Your task to perform on an android device: When is my next appointment? Image 0: 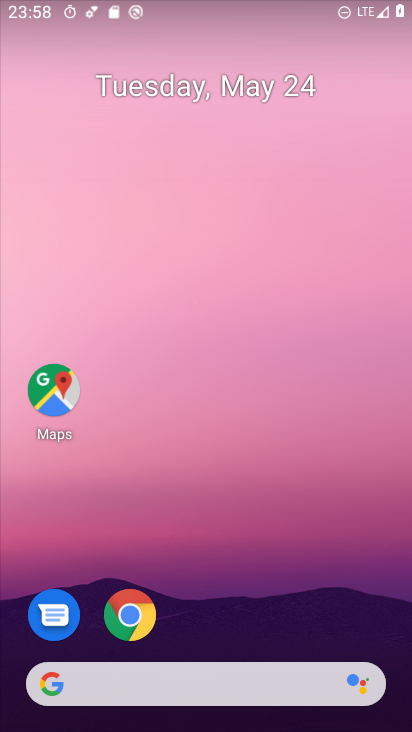
Step 0: press home button
Your task to perform on an android device: When is my next appointment? Image 1: 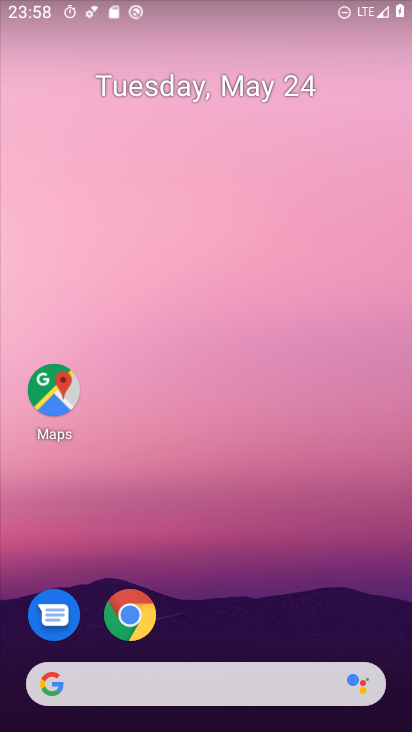
Step 1: drag from (266, 695) to (337, 90)
Your task to perform on an android device: When is my next appointment? Image 2: 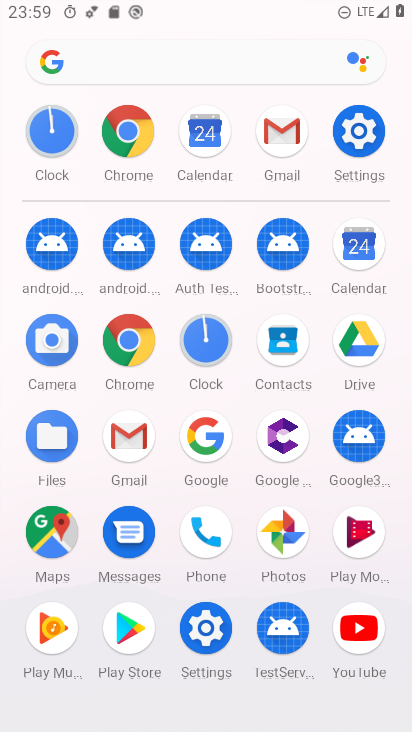
Step 2: click (198, 147)
Your task to perform on an android device: When is my next appointment? Image 3: 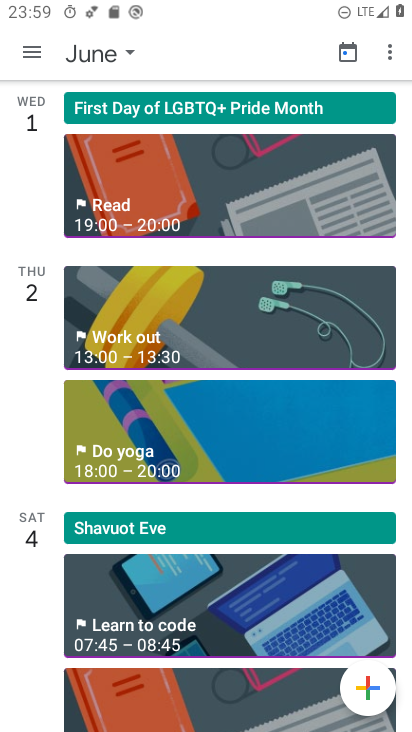
Step 3: click (44, 60)
Your task to perform on an android device: When is my next appointment? Image 4: 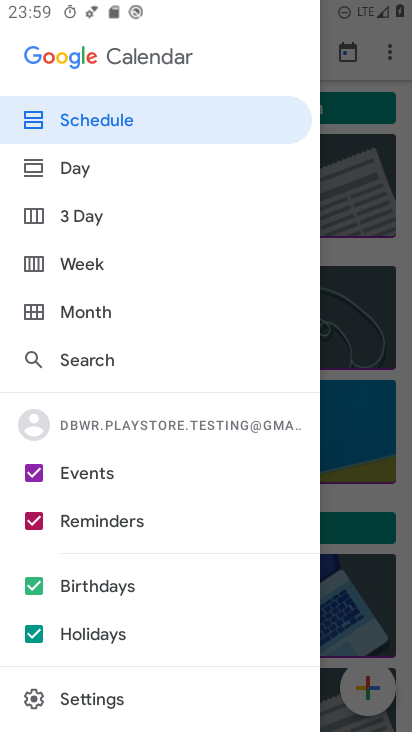
Step 4: click (124, 123)
Your task to perform on an android device: When is my next appointment? Image 5: 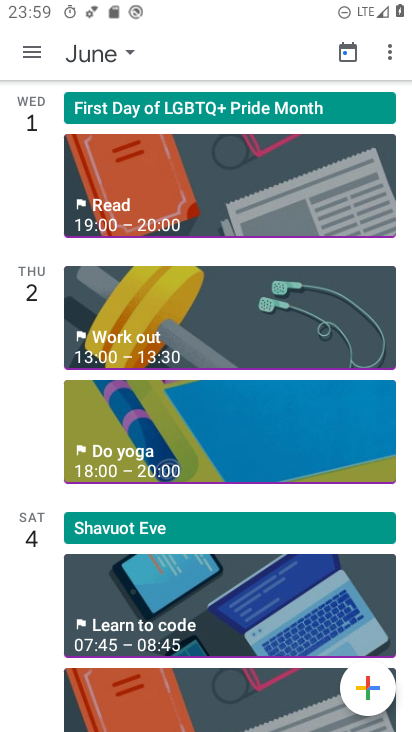
Step 5: click (40, 49)
Your task to perform on an android device: When is my next appointment? Image 6: 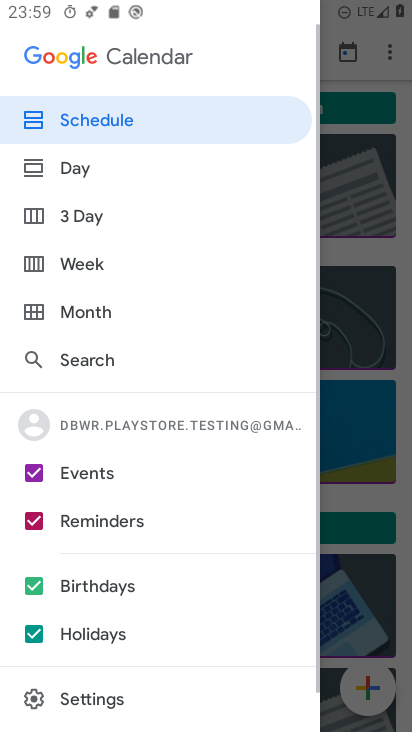
Step 6: click (125, 300)
Your task to perform on an android device: When is my next appointment? Image 7: 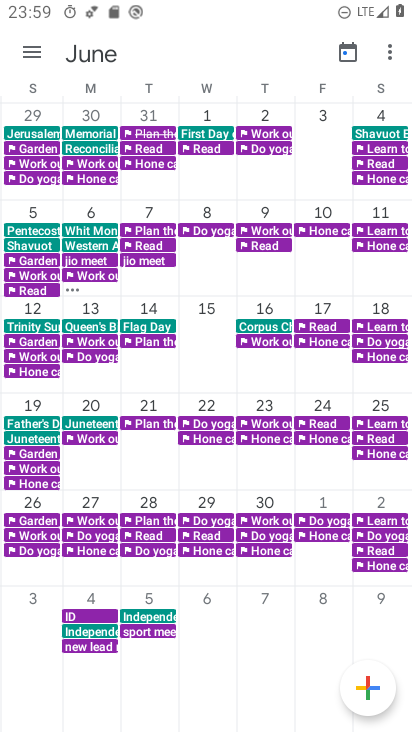
Step 7: drag from (56, 322) to (362, 259)
Your task to perform on an android device: When is my next appointment? Image 8: 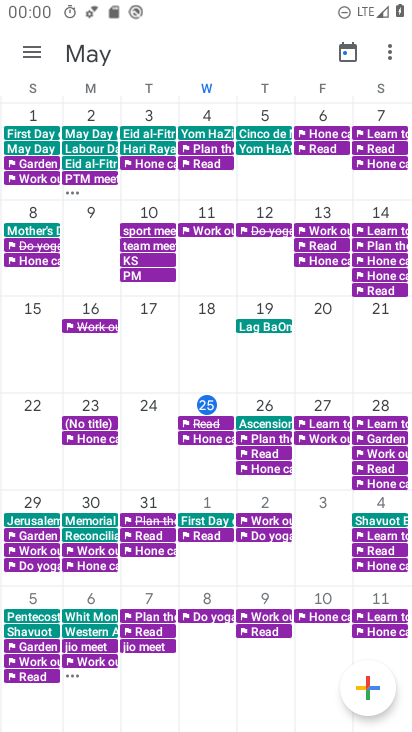
Step 8: click (22, 42)
Your task to perform on an android device: When is my next appointment? Image 9: 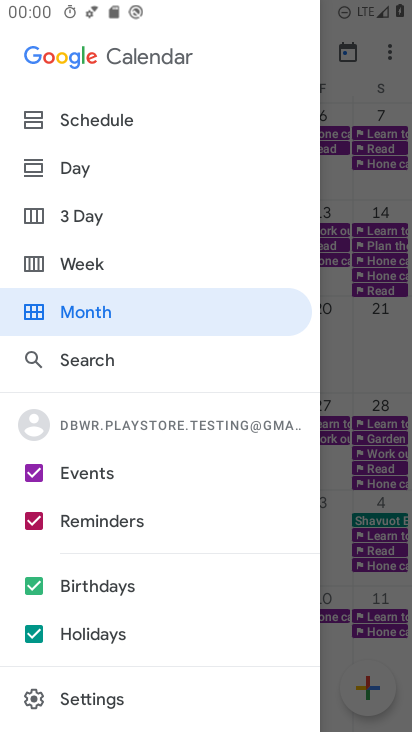
Step 9: click (99, 129)
Your task to perform on an android device: When is my next appointment? Image 10: 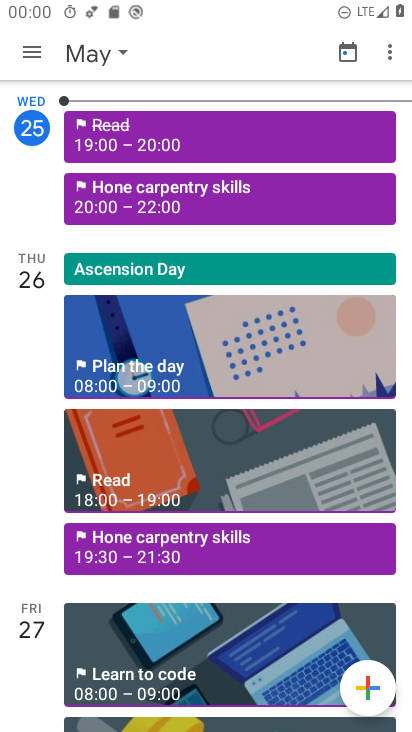
Step 10: task complete